Your task to perform on an android device: turn on bluetooth scan Image 0: 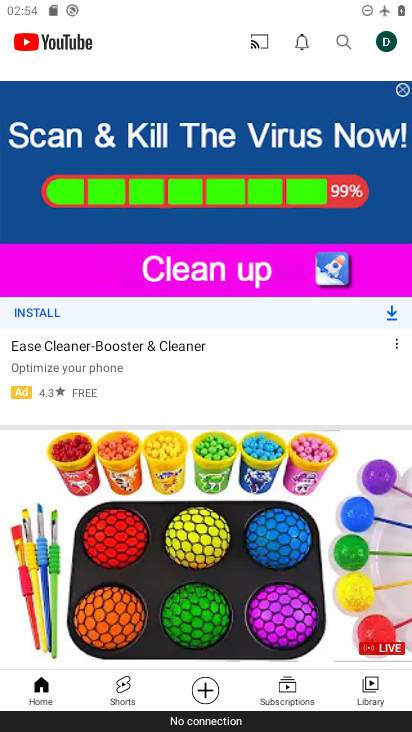
Step 0: press home button
Your task to perform on an android device: turn on bluetooth scan Image 1: 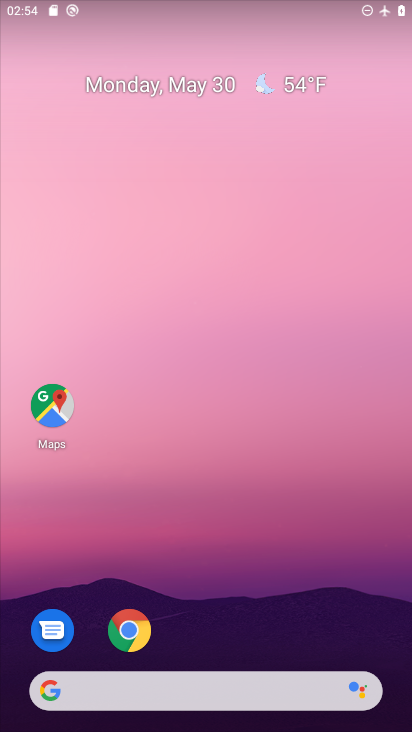
Step 1: drag from (233, 673) to (339, 206)
Your task to perform on an android device: turn on bluetooth scan Image 2: 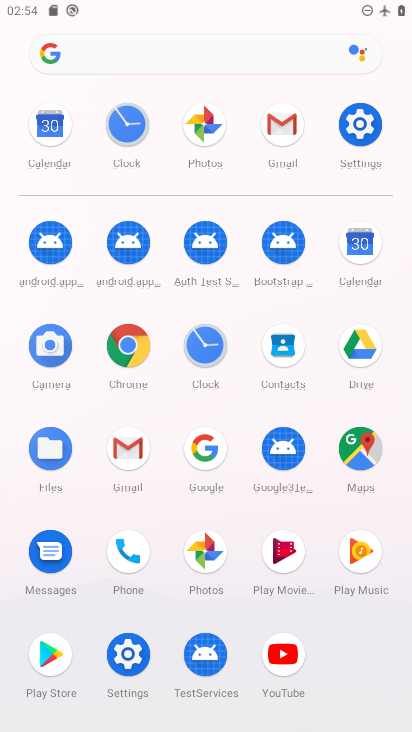
Step 2: click (359, 123)
Your task to perform on an android device: turn on bluetooth scan Image 3: 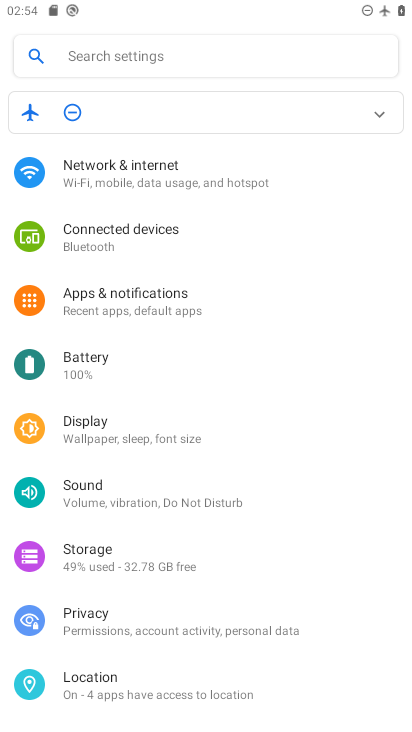
Step 3: drag from (194, 576) to (262, 277)
Your task to perform on an android device: turn on bluetooth scan Image 4: 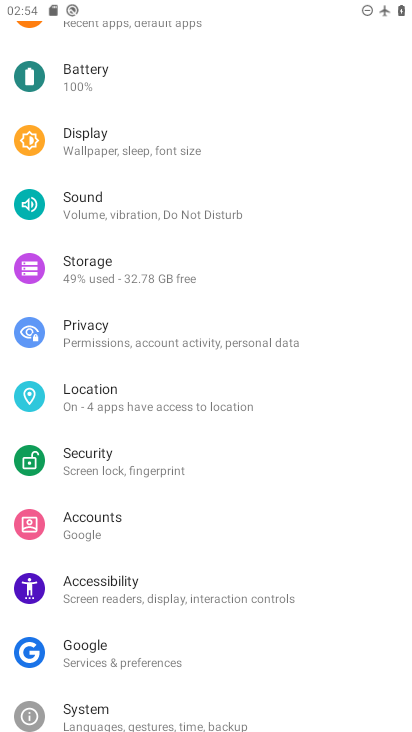
Step 4: click (112, 401)
Your task to perform on an android device: turn on bluetooth scan Image 5: 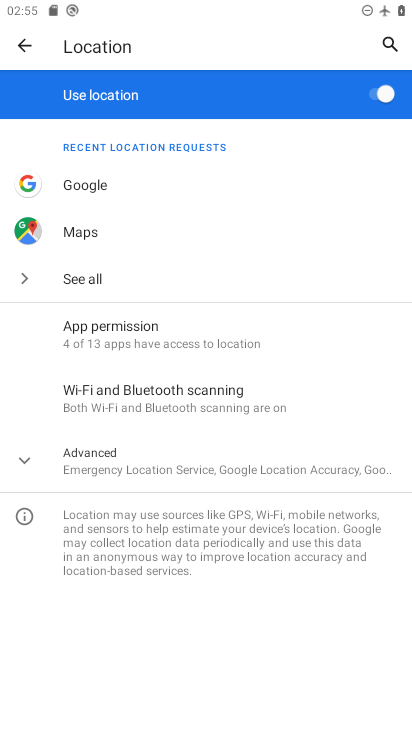
Step 5: click (132, 404)
Your task to perform on an android device: turn on bluetooth scan Image 6: 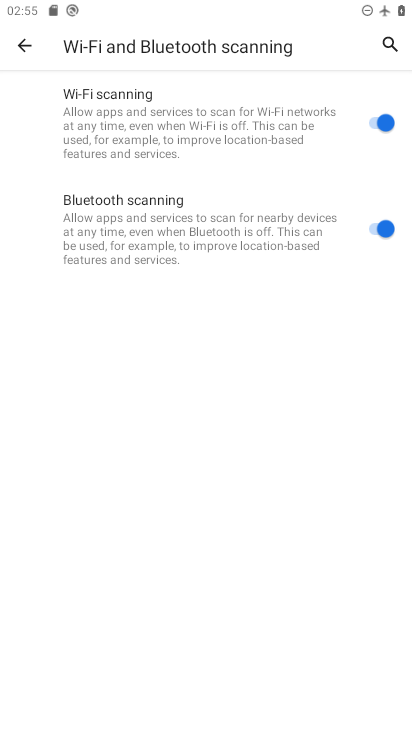
Step 6: task complete